Your task to perform on an android device: Open notification settings Image 0: 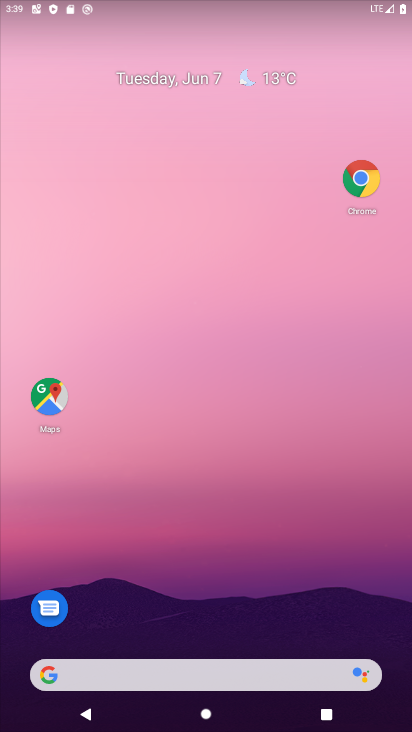
Step 0: drag from (185, 651) to (267, 145)
Your task to perform on an android device: Open notification settings Image 1: 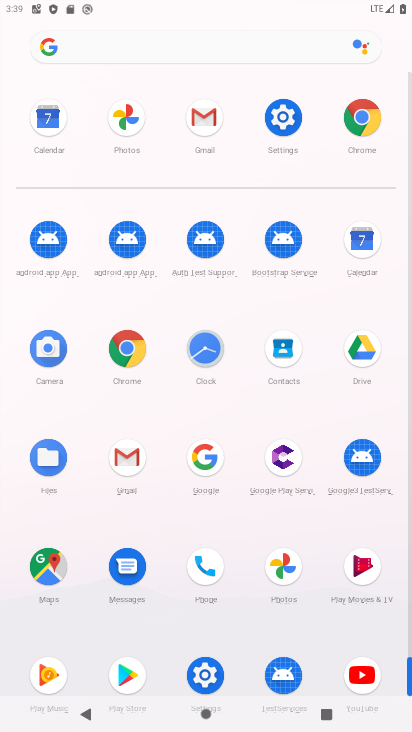
Step 1: click (198, 663)
Your task to perform on an android device: Open notification settings Image 2: 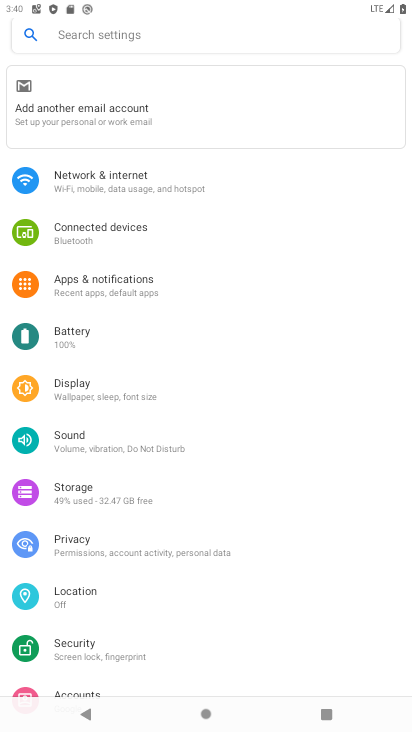
Step 2: click (143, 292)
Your task to perform on an android device: Open notification settings Image 3: 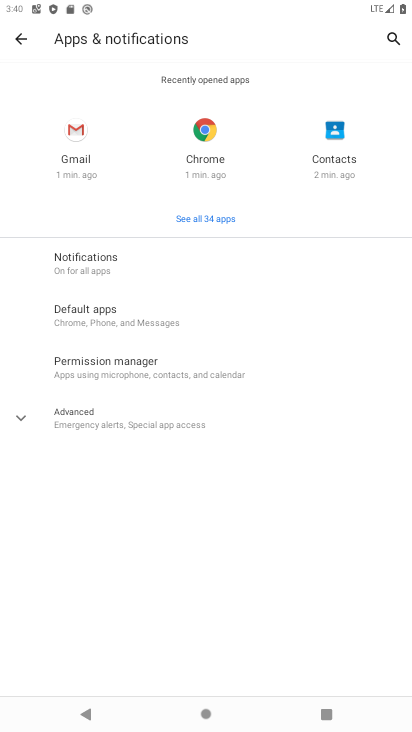
Step 3: click (129, 263)
Your task to perform on an android device: Open notification settings Image 4: 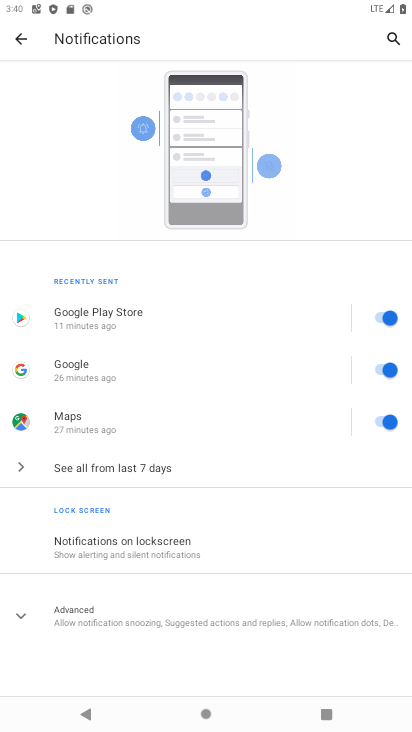
Step 4: task complete